Your task to perform on an android device: Open the map Image 0: 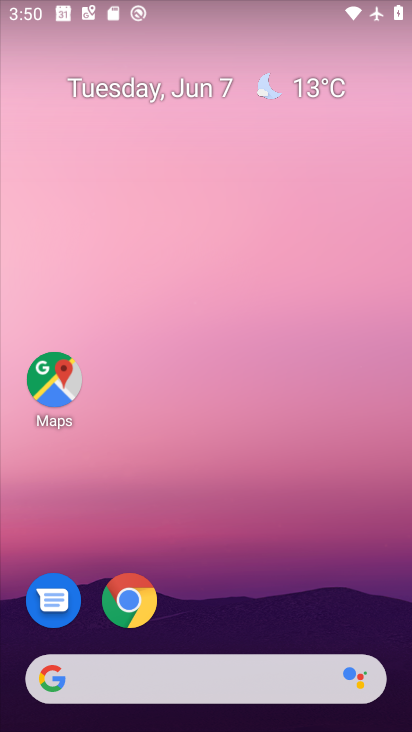
Step 0: click (54, 388)
Your task to perform on an android device: Open the map Image 1: 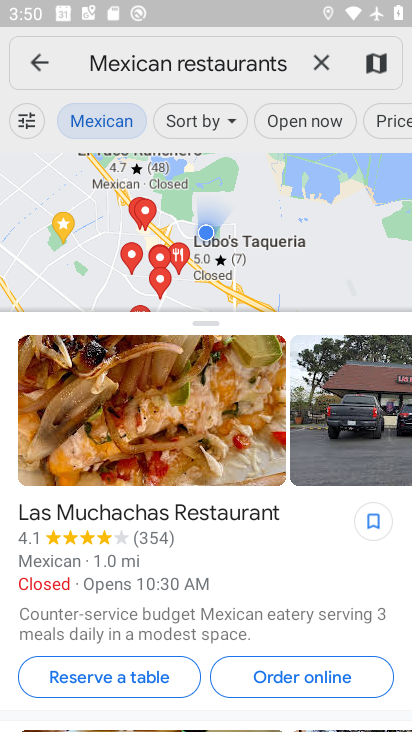
Step 1: task complete